Your task to perform on an android device: Open network settings Image 0: 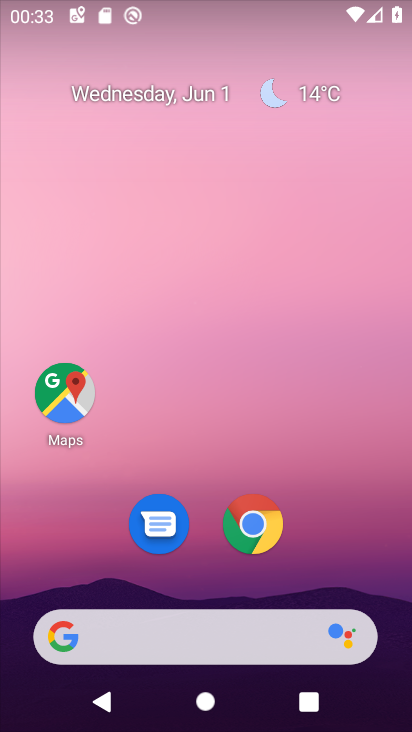
Step 0: drag from (193, 489) to (222, 9)
Your task to perform on an android device: Open network settings Image 1: 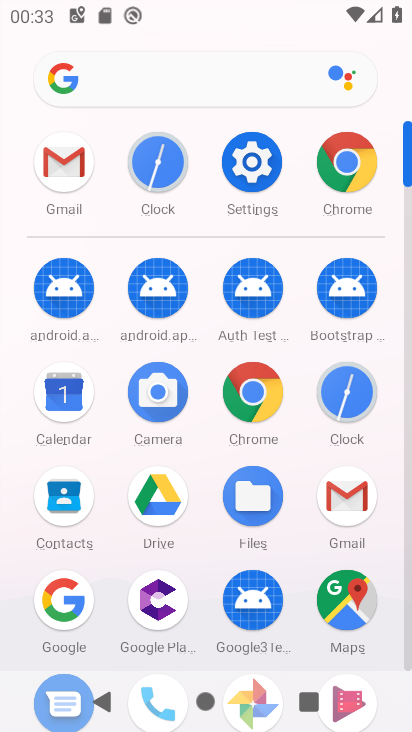
Step 1: click (250, 149)
Your task to perform on an android device: Open network settings Image 2: 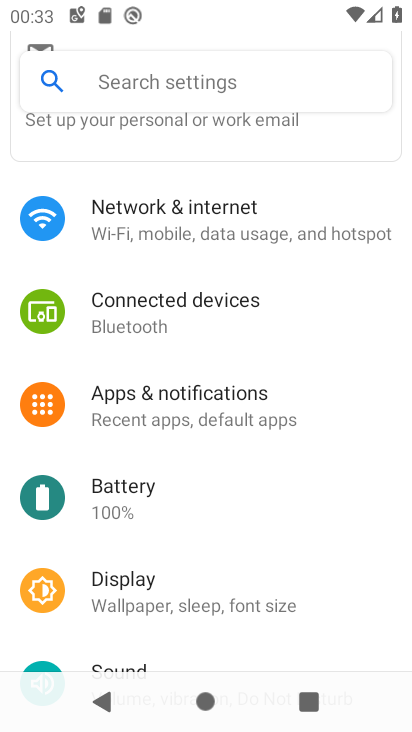
Step 2: click (269, 222)
Your task to perform on an android device: Open network settings Image 3: 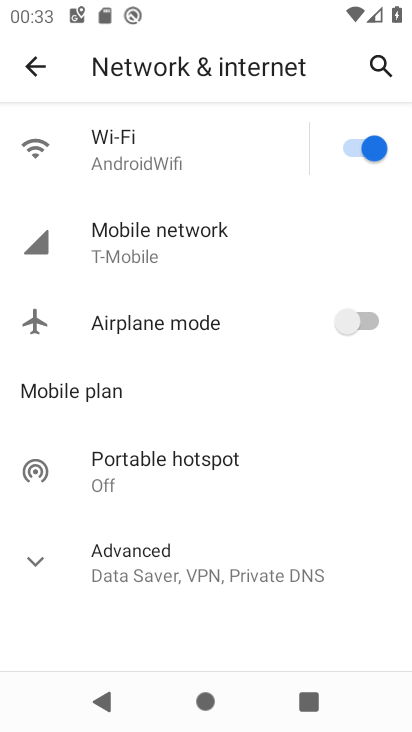
Step 3: task complete